Your task to perform on an android device: install app "Reddit" Image 0: 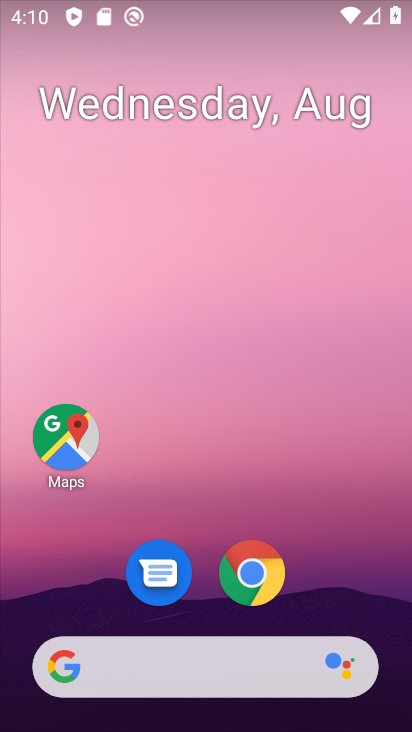
Step 0: drag from (201, 516) to (182, 177)
Your task to perform on an android device: install app "Reddit" Image 1: 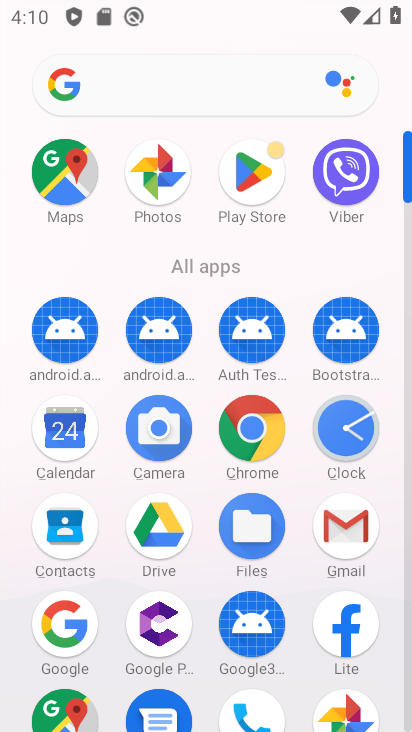
Step 1: click (241, 177)
Your task to perform on an android device: install app "Reddit" Image 2: 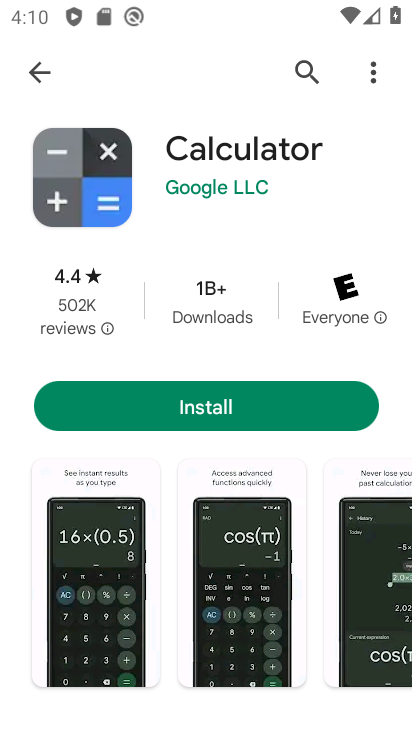
Step 2: click (297, 82)
Your task to perform on an android device: install app "Reddit" Image 3: 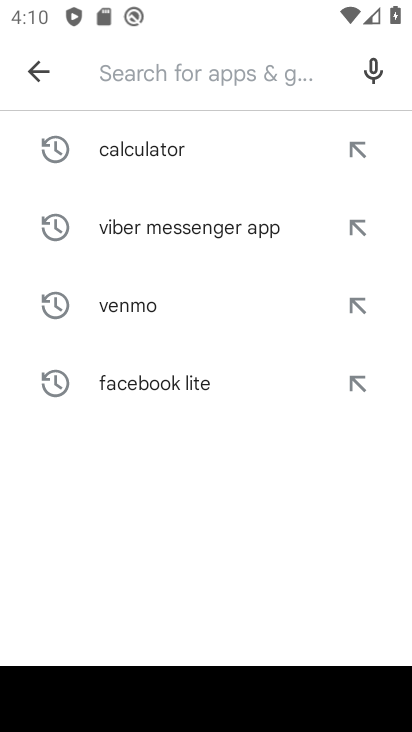
Step 3: type "Reddit"
Your task to perform on an android device: install app "Reddit" Image 4: 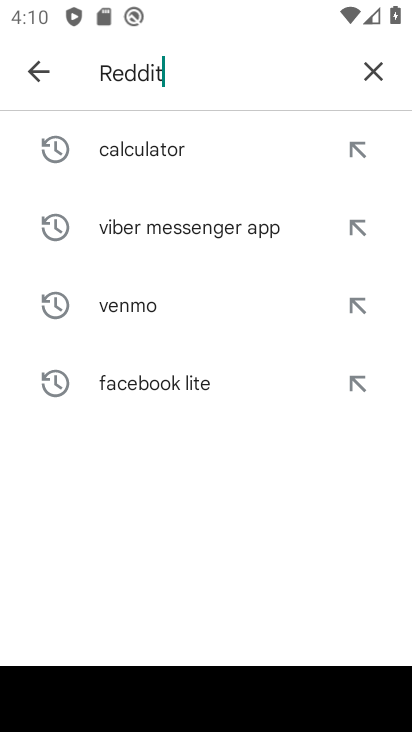
Step 4: type ""
Your task to perform on an android device: install app "Reddit" Image 5: 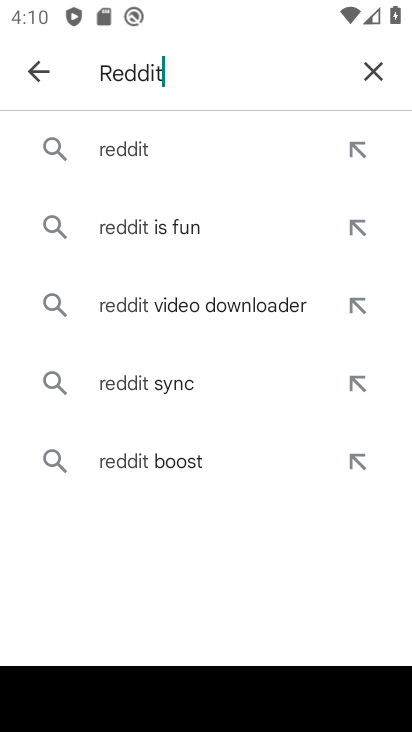
Step 5: click (147, 150)
Your task to perform on an android device: install app "Reddit" Image 6: 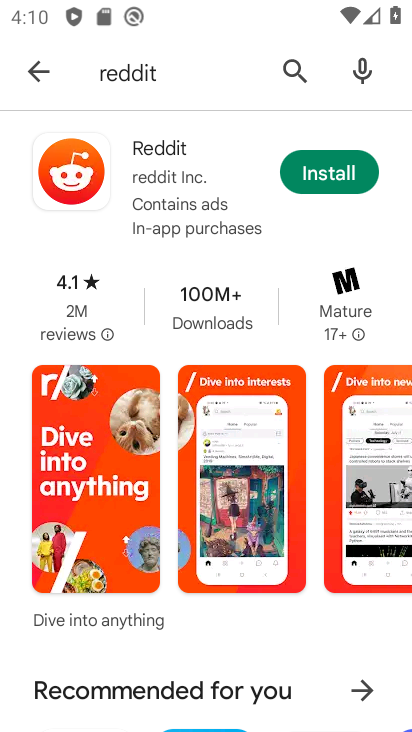
Step 6: click (287, 177)
Your task to perform on an android device: install app "Reddit" Image 7: 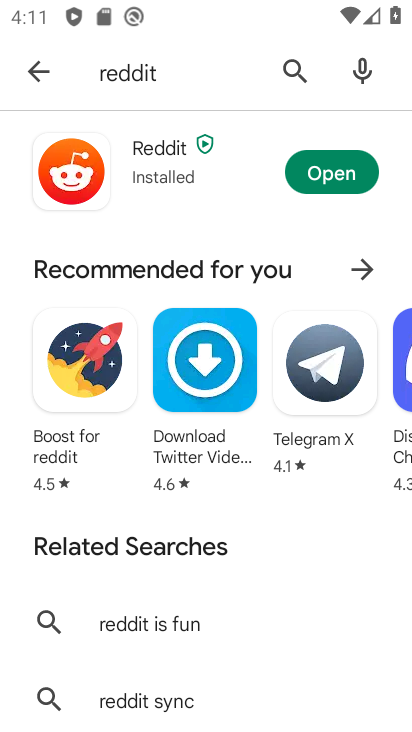
Step 7: task complete